Your task to perform on an android device: see sites visited before in the chrome app Image 0: 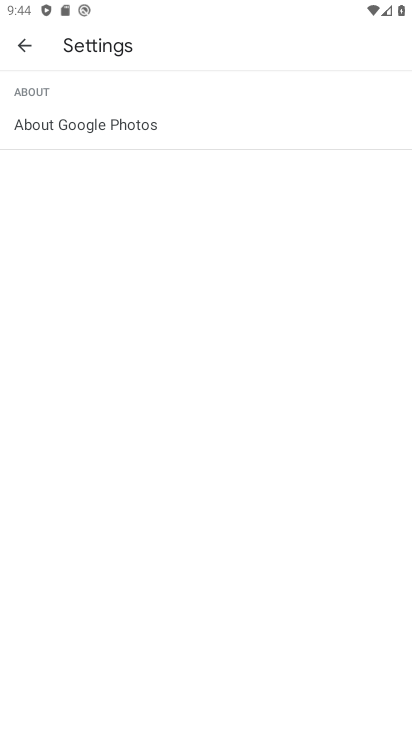
Step 0: press home button
Your task to perform on an android device: see sites visited before in the chrome app Image 1: 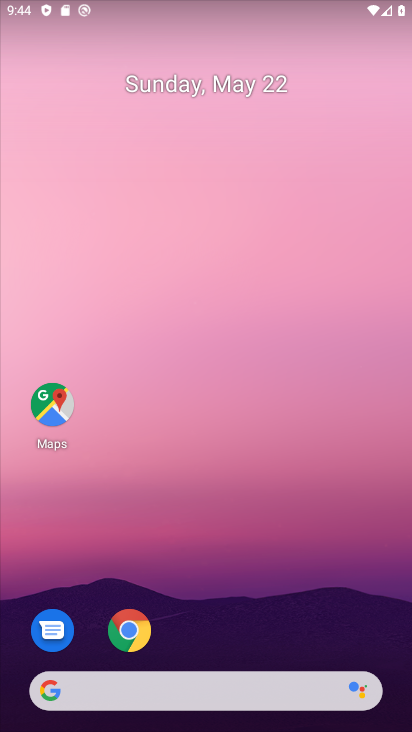
Step 1: click (131, 631)
Your task to perform on an android device: see sites visited before in the chrome app Image 2: 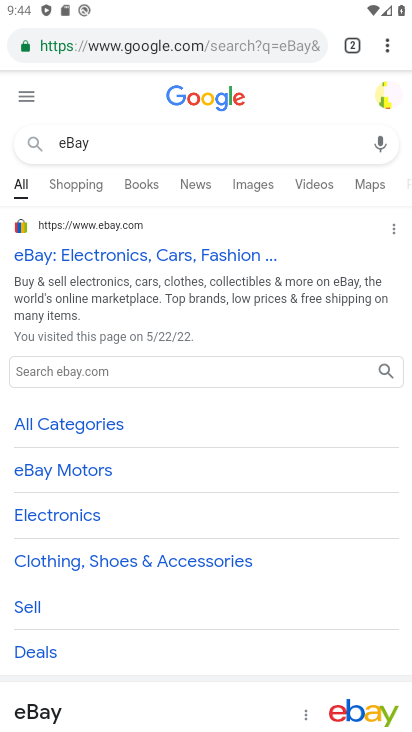
Step 2: click (391, 45)
Your task to perform on an android device: see sites visited before in the chrome app Image 3: 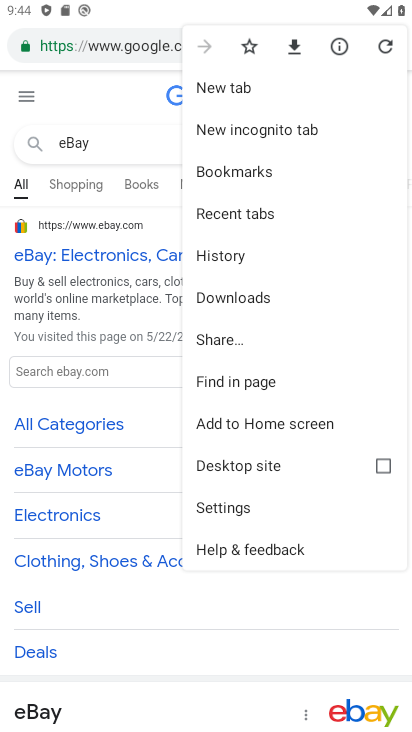
Step 3: click (216, 294)
Your task to perform on an android device: see sites visited before in the chrome app Image 4: 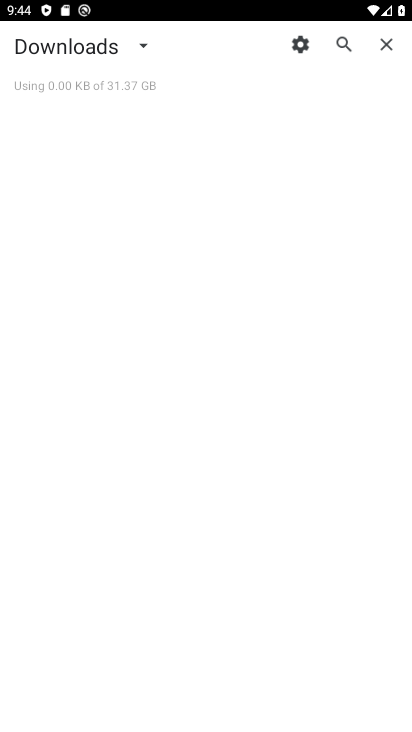
Step 4: task complete